Your task to perform on an android device: Add "logitech g910" to the cart on newegg.com Image 0: 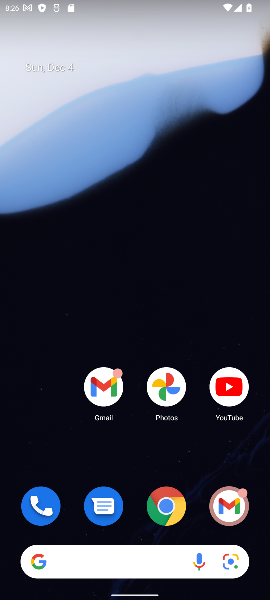
Step 0: click (159, 500)
Your task to perform on an android device: Add "logitech g910" to the cart on newegg.com Image 1: 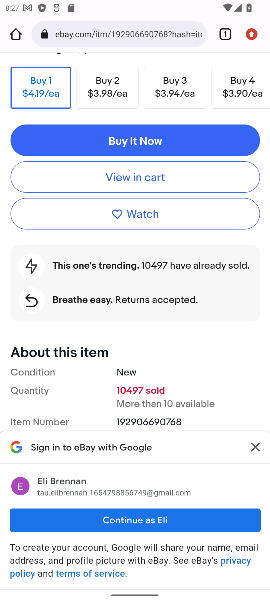
Step 1: click (149, 26)
Your task to perform on an android device: Add "logitech g910" to the cart on newegg.com Image 2: 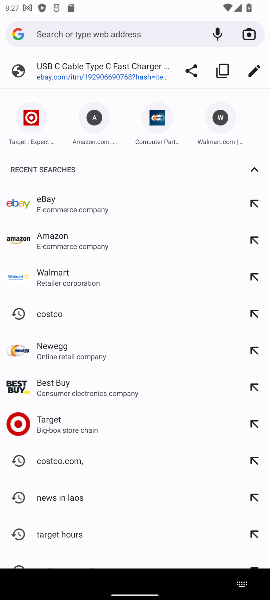
Step 2: click (38, 350)
Your task to perform on an android device: Add "logitech g910" to the cart on newegg.com Image 3: 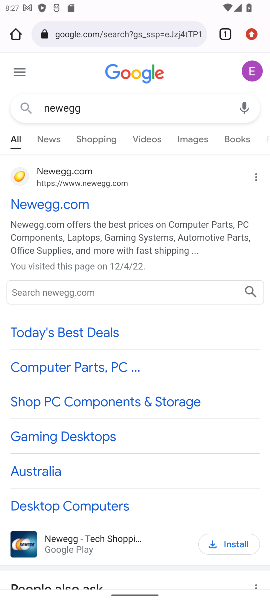
Step 3: click (38, 207)
Your task to perform on an android device: Add "logitech g910" to the cart on newegg.com Image 4: 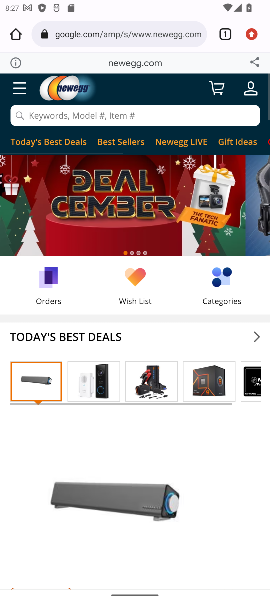
Step 4: click (87, 121)
Your task to perform on an android device: Add "logitech g910" to the cart on newegg.com Image 5: 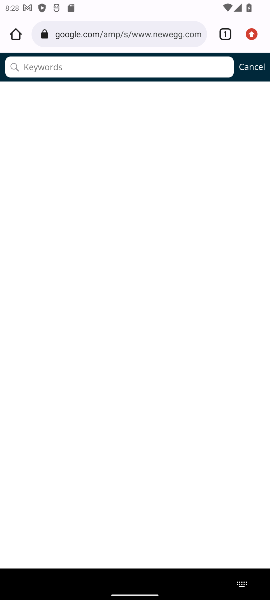
Step 5: click (32, 59)
Your task to perform on an android device: Add "logitech g910" to the cart on newegg.com Image 6: 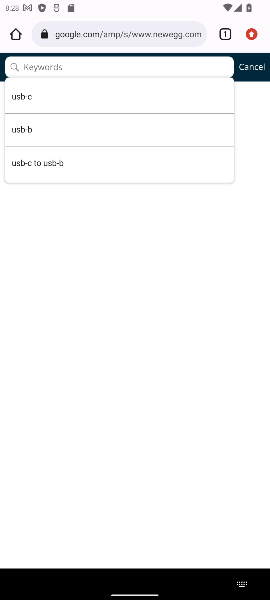
Step 6: type "logitech g910"
Your task to perform on an android device: Add "logitech g910" to the cart on newegg.com Image 7: 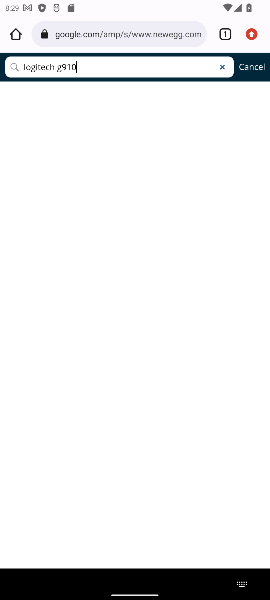
Step 7: task complete